Your task to perform on an android device: Go to Google maps Image 0: 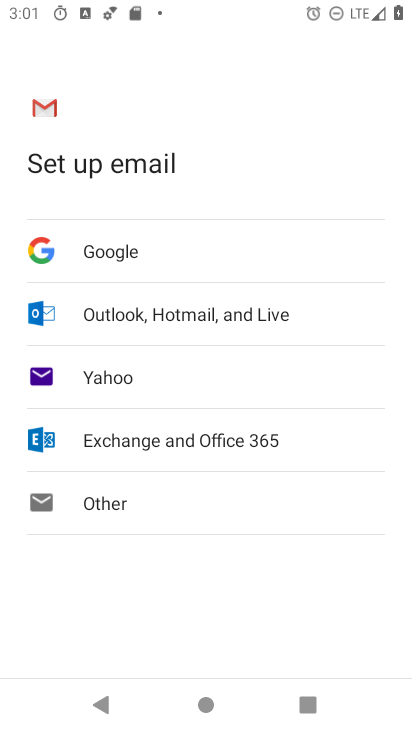
Step 0: press home button
Your task to perform on an android device: Go to Google maps Image 1: 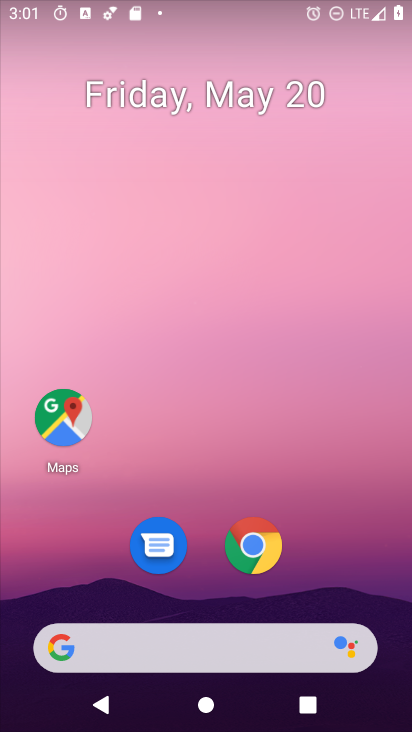
Step 1: drag from (285, 625) to (340, 13)
Your task to perform on an android device: Go to Google maps Image 2: 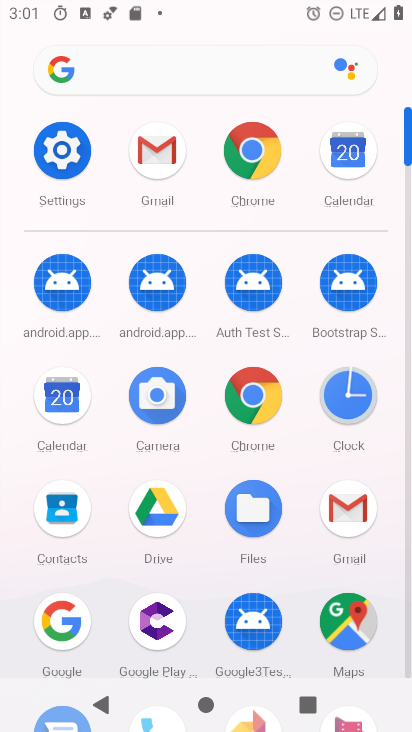
Step 2: click (265, 404)
Your task to perform on an android device: Go to Google maps Image 3: 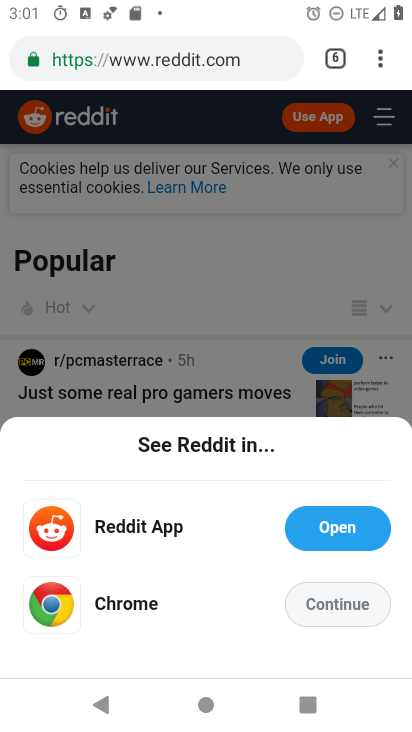
Step 3: press back button
Your task to perform on an android device: Go to Google maps Image 4: 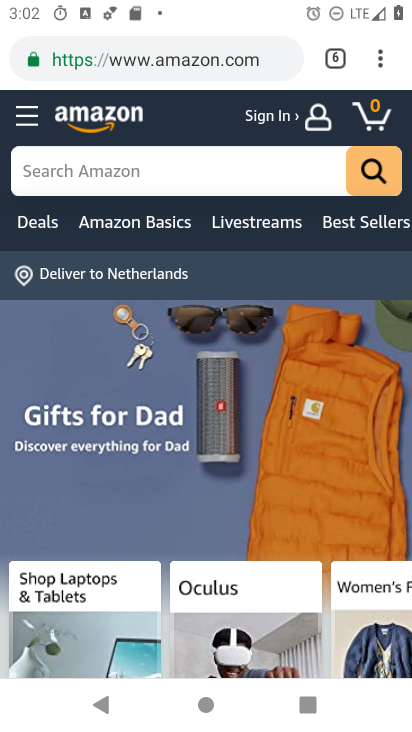
Step 4: press home button
Your task to perform on an android device: Go to Google maps Image 5: 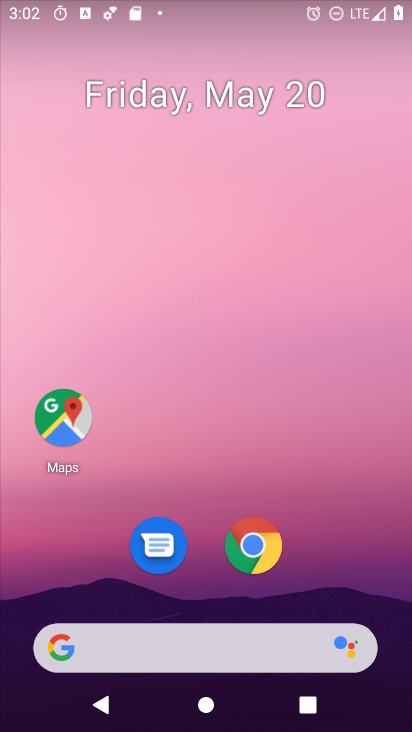
Step 5: drag from (150, 640) to (190, 126)
Your task to perform on an android device: Go to Google maps Image 6: 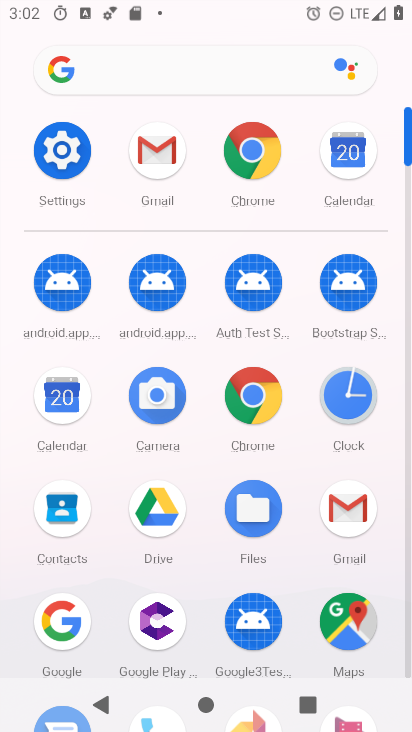
Step 6: click (361, 639)
Your task to perform on an android device: Go to Google maps Image 7: 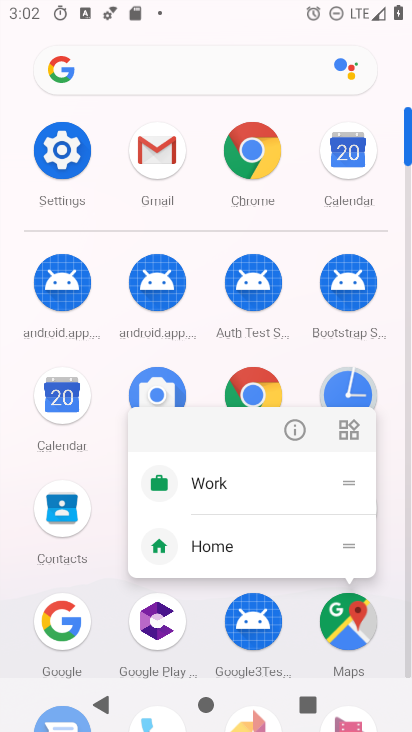
Step 7: click (351, 616)
Your task to perform on an android device: Go to Google maps Image 8: 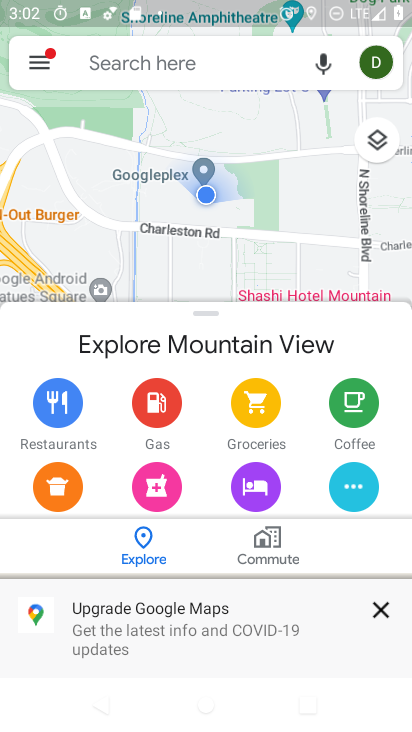
Step 8: task complete